Your task to perform on an android device: open chrome privacy settings Image 0: 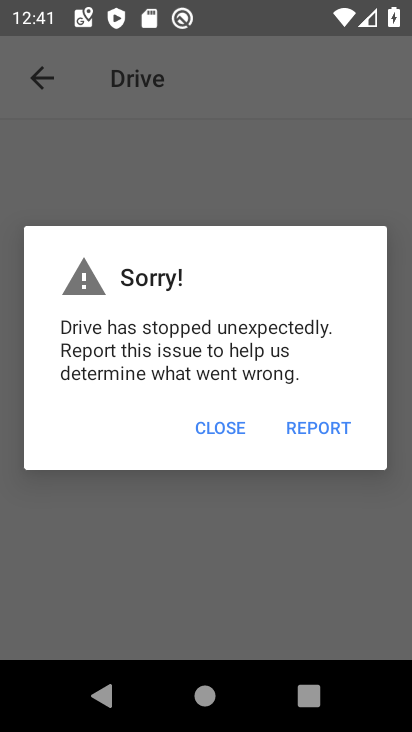
Step 0: press home button
Your task to perform on an android device: open chrome privacy settings Image 1: 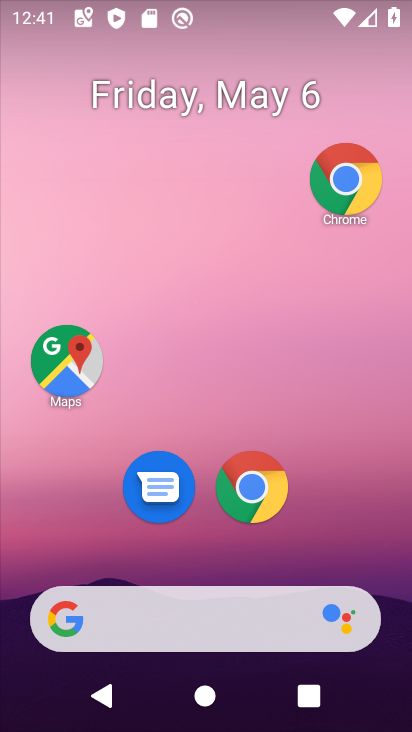
Step 1: drag from (326, 538) to (281, 241)
Your task to perform on an android device: open chrome privacy settings Image 2: 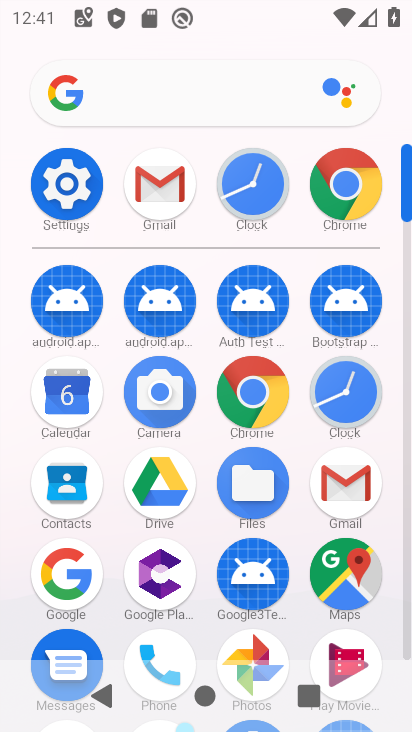
Step 2: click (60, 180)
Your task to perform on an android device: open chrome privacy settings Image 3: 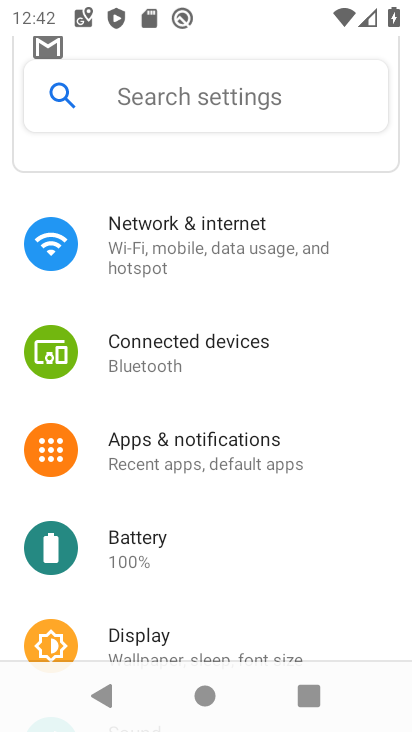
Step 3: drag from (136, 464) to (184, 287)
Your task to perform on an android device: open chrome privacy settings Image 4: 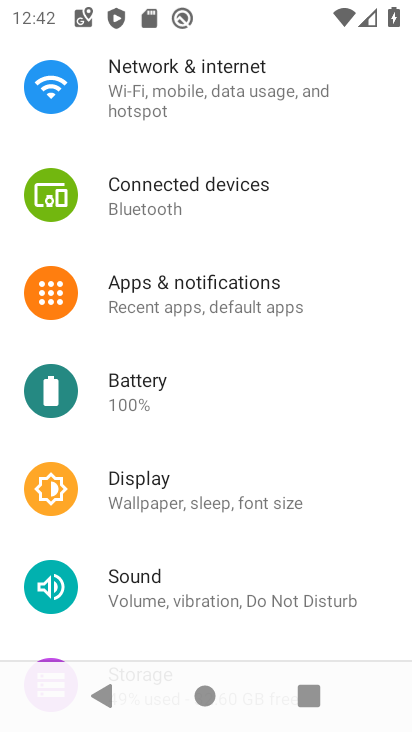
Step 4: drag from (222, 622) to (269, 411)
Your task to perform on an android device: open chrome privacy settings Image 5: 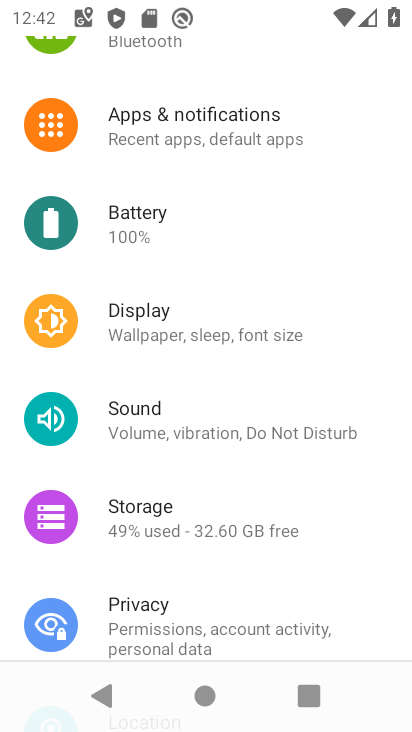
Step 5: click (205, 622)
Your task to perform on an android device: open chrome privacy settings Image 6: 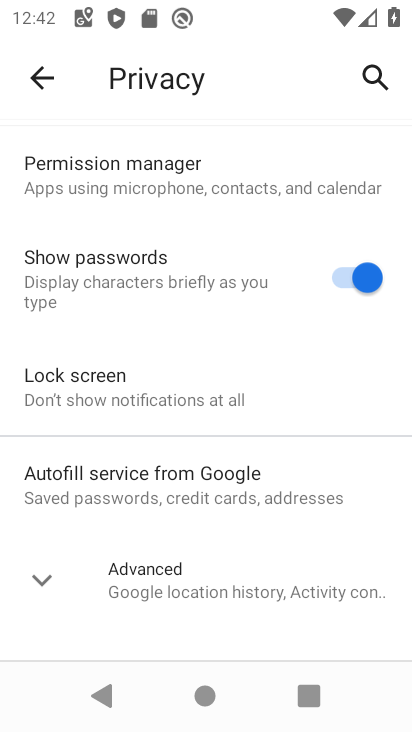
Step 6: task complete